Your task to perform on an android device: turn vacation reply on in the gmail app Image 0: 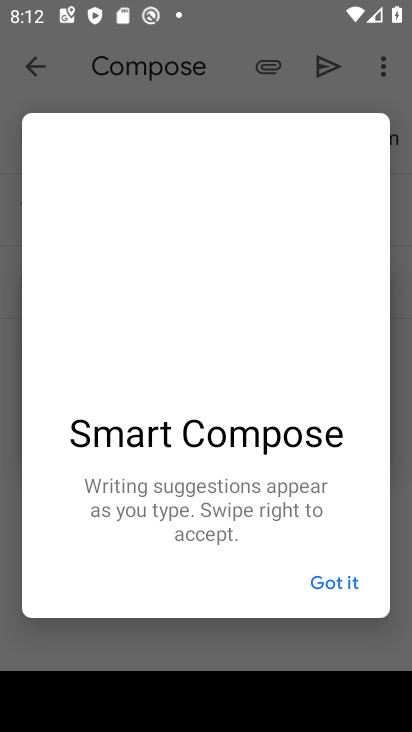
Step 0: press home button
Your task to perform on an android device: turn vacation reply on in the gmail app Image 1: 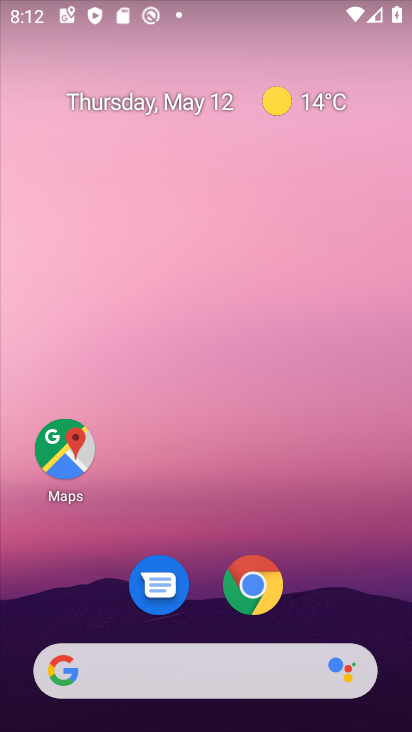
Step 1: drag from (319, 492) to (175, 4)
Your task to perform on an android device: turn vacation reply on in the gmail app Image 2: 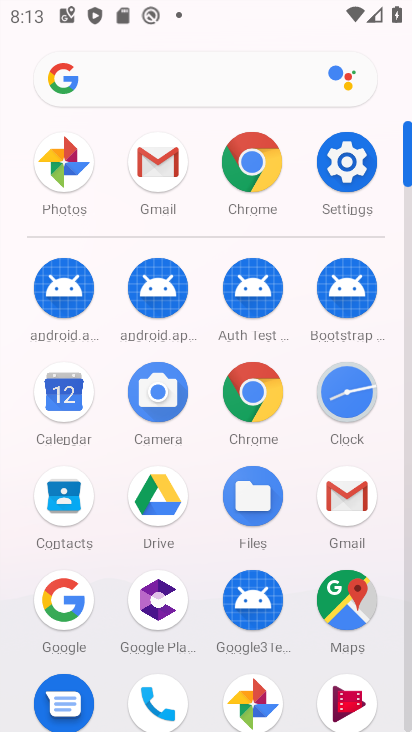
Step 2: click (153, 171)
Your task to perform on an android device: turn vacation reply on in the gmail app Image 3: 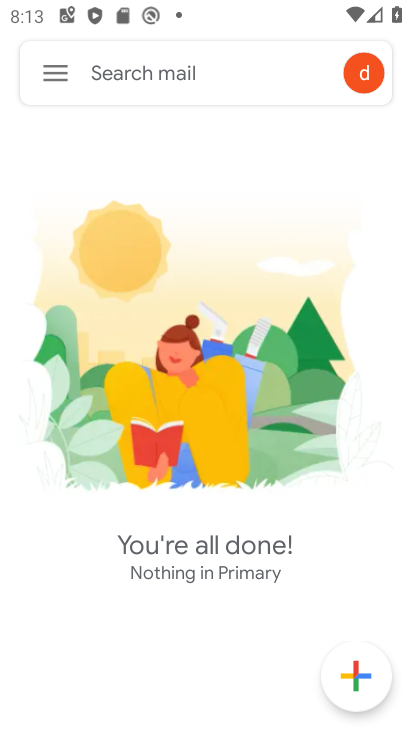
Step 3: click (47, 65)
Your task to perform on an android device: turn vacation reply on in the gmail app Image 4: 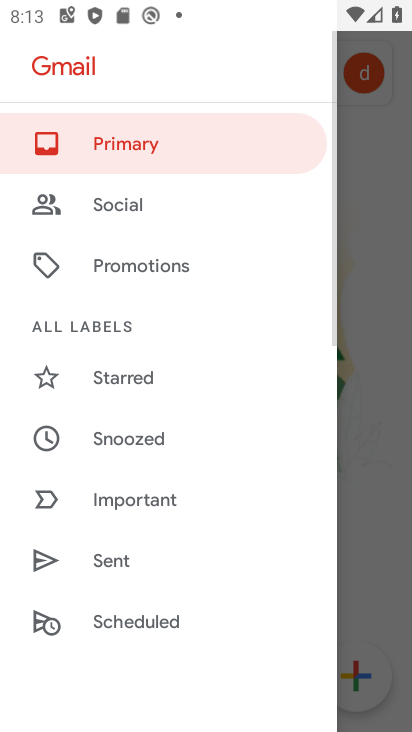
Step 4: drag from (230, 546) to (233, 79)
Your task to perform on an android device: turn vacation reply on in the gmail app Image 5: 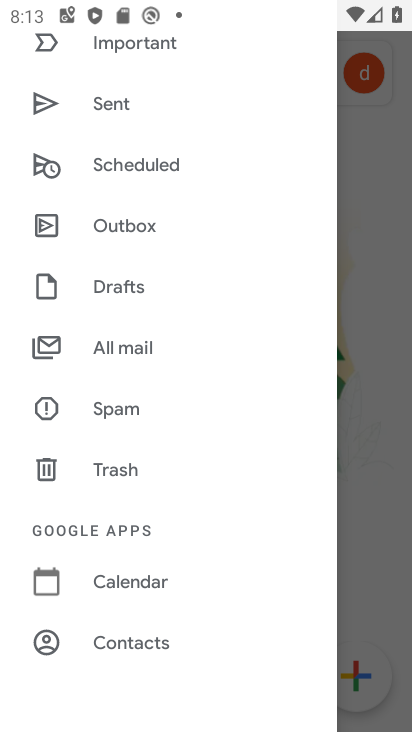
Step 5: drag from (186, 482) to (212, 210)
Your task to perform on an android device: turn vacation reply on in the gmail app Image 6: 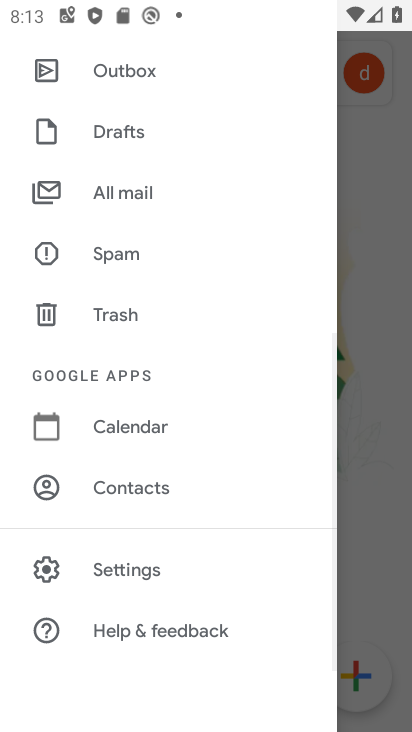
Step 6: click (155, 570)
Your task to perform on an android device: turn vacation reply on in the gmail app Image 7: 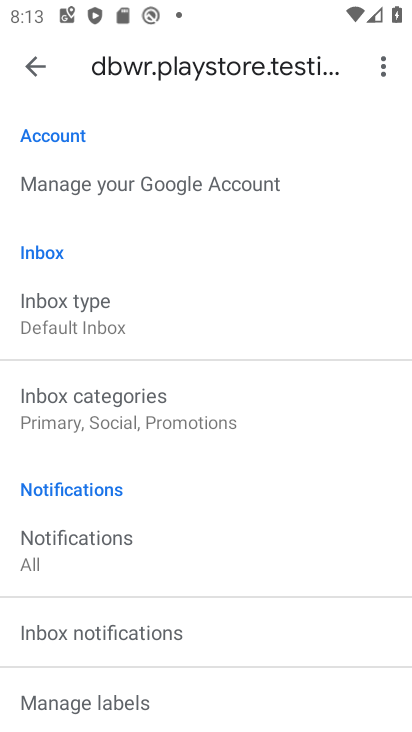
Step 7: drag from (264, 486) to (252, 129)
Your task to perform on an android device: turn vacation reply on in the gmail app Image 8: 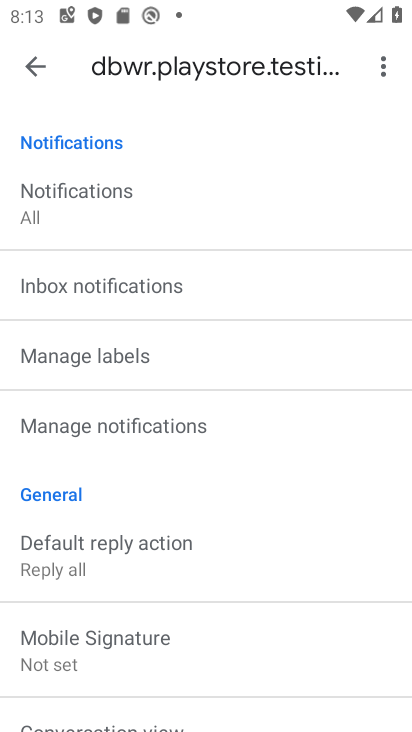
Step 8: drag from (238, 574) to (227, 106)
Your task to perform on an android device: turn vacation reply on in the gmail app Image 9: 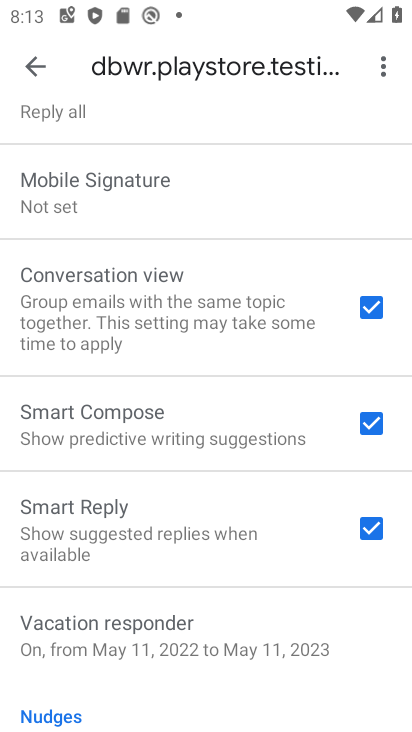
Step 9: click (257, 625)
Your task to perform on an android device: turn vacation reply on in the gmail app Image 10: 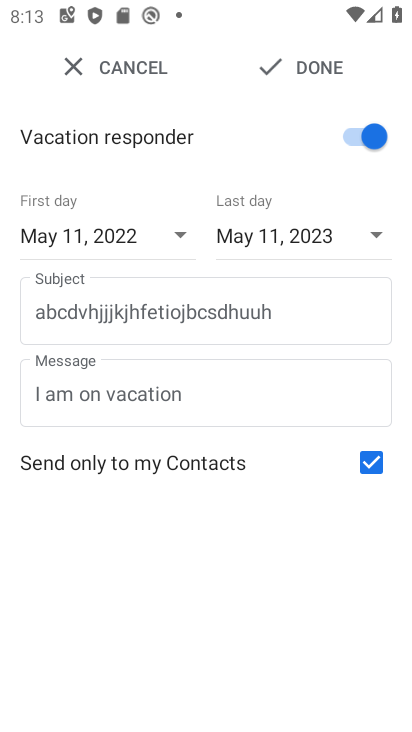
Step 10: task complete